Your task to perform on an android device: Go to ESPN.com Image 0: 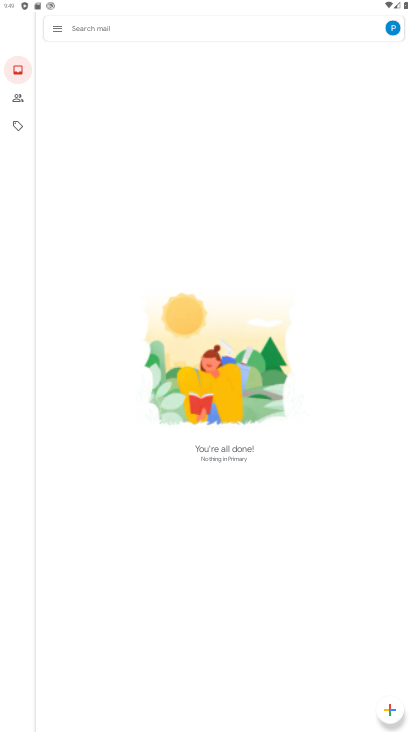
Step 0: press home button
Your task to perform on an android device: Go to ESPN.com Image 1: 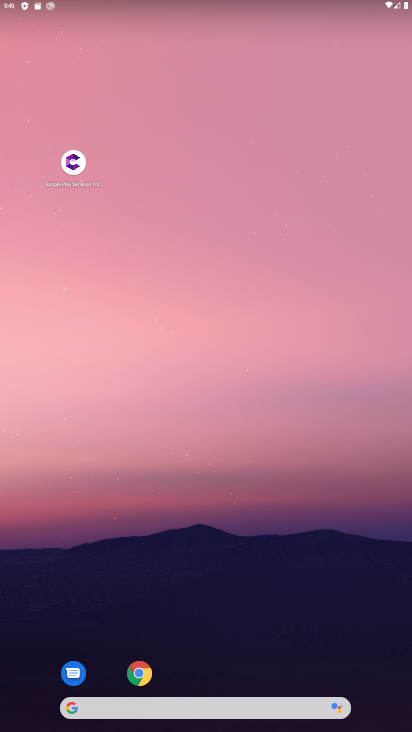
Step 1: click (141, 674)
Your task to perform on an android device: Go to ESPN.com Image 2: 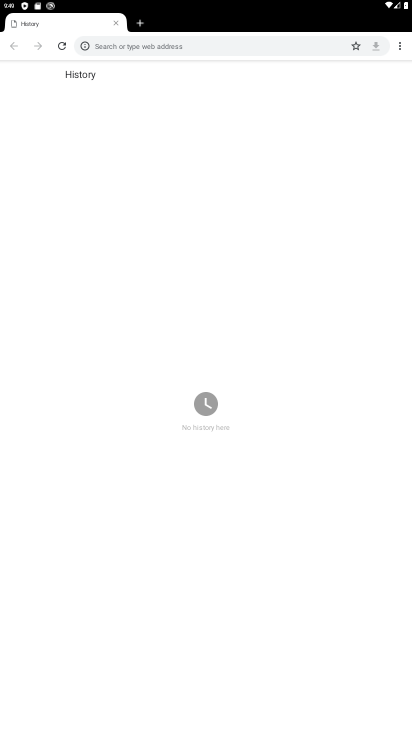
Step 2: click (141, 674)
Your task to perform on an android device: Go to ESPN.com Image 3: 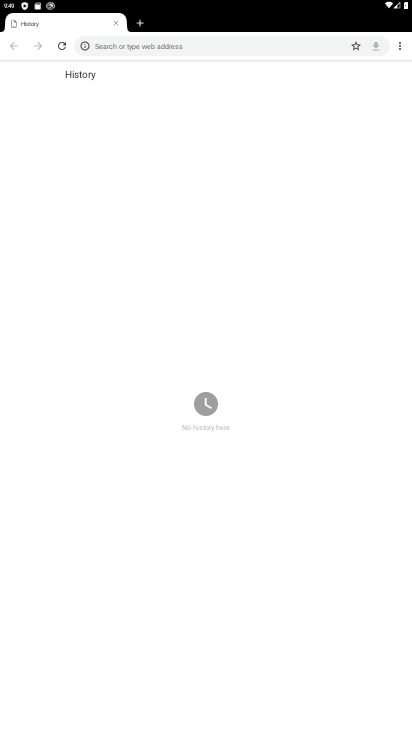
Step 3: click (402, 48)
Your task to perform on an android device: Go to ESPN.com Image 4: 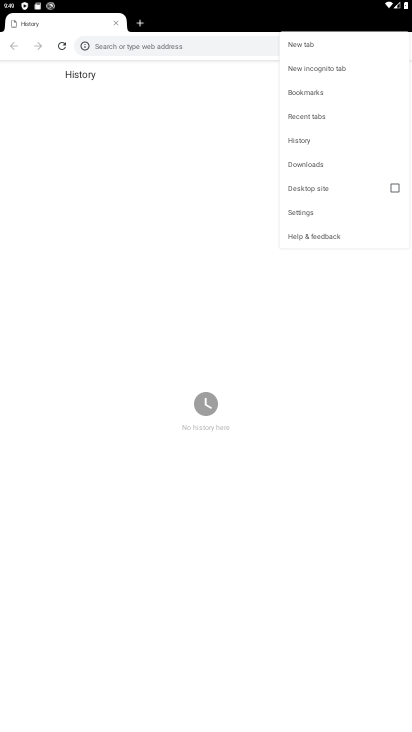
Step 4: click (307, 46)
Your task to perform on an android device: Go to ESPN.com Image 5: 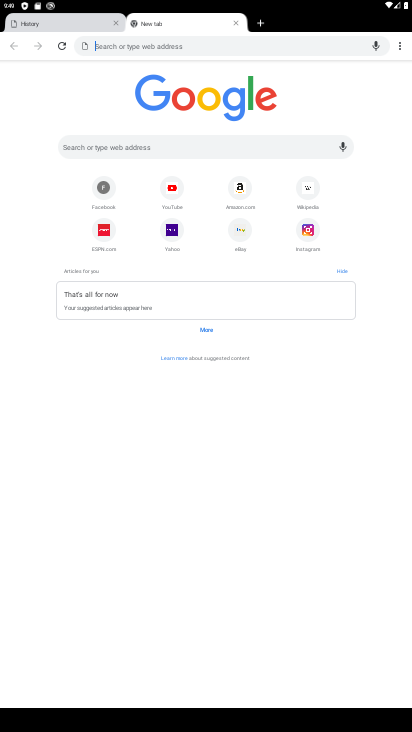
Step 5: click (105, 235)
Your task to perform on an android device: Go to ESPN.com Image 6: 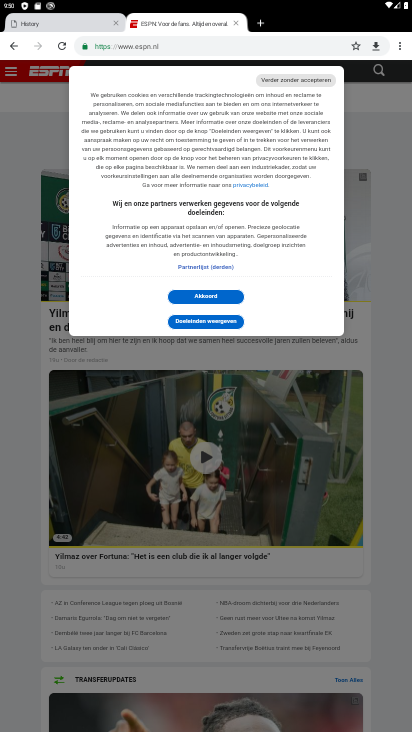
Step 6: task complete